Your task to perform on an android device: open chrome privacy settings Image 0: 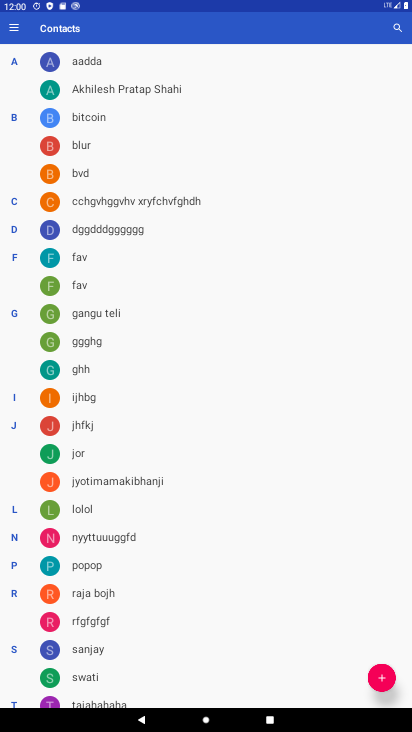
Step 0: press home button
Your task to perform on an android device: open chrome privacy settings Image 1: 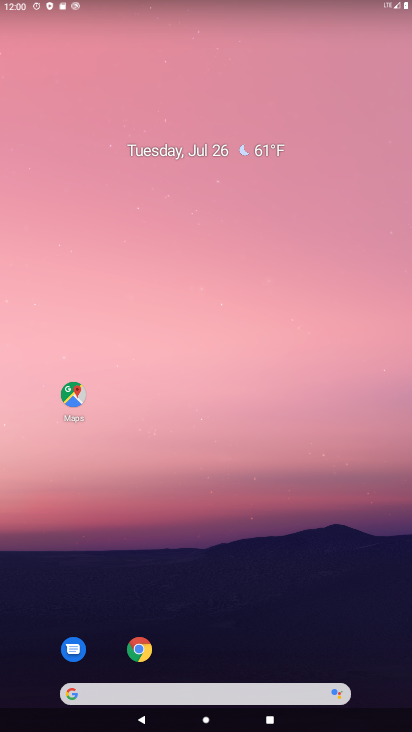
Step 1: drag from (222, 668) to (394, 41)
Your task to perform on an android device: open chrome privacy settings Image 2: 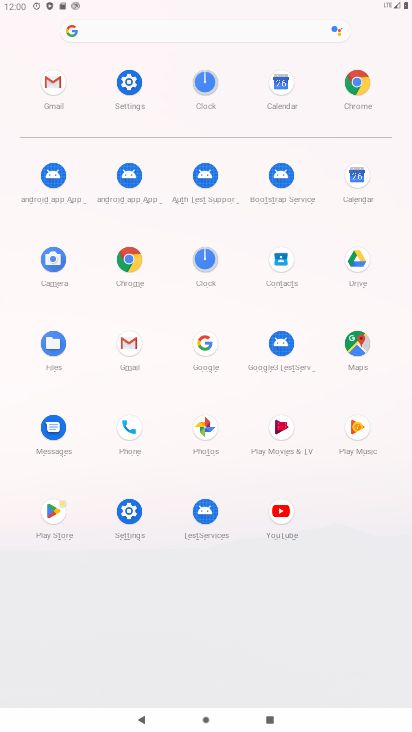
Step 2: click (126, 259)
Your task to perform on an android device: open chrome privacy settings Image 3: 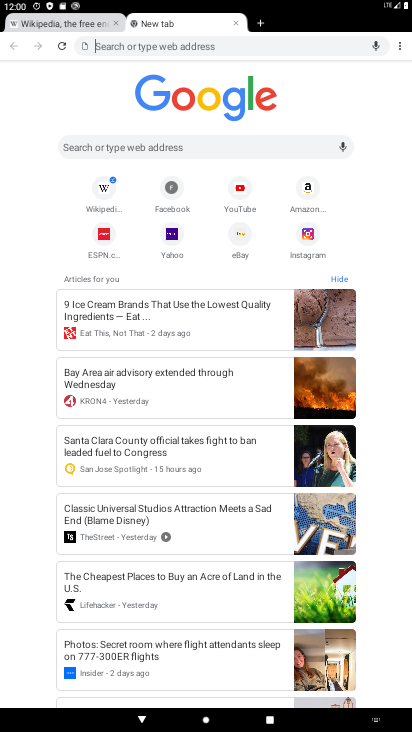
Step 3: drag from (401, 45) to (315, 216)
Your task to perform on an android device: open chrome privacy settings Image 4: 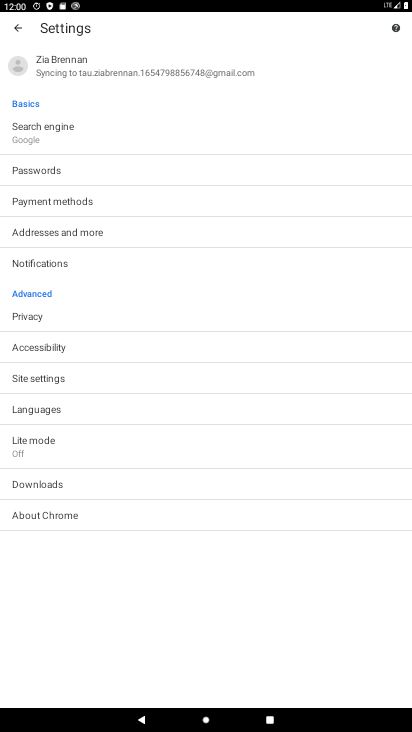
Step 4: click (34, 321)
Your task to perform on an android device: open chrome privacy settings Image 5: 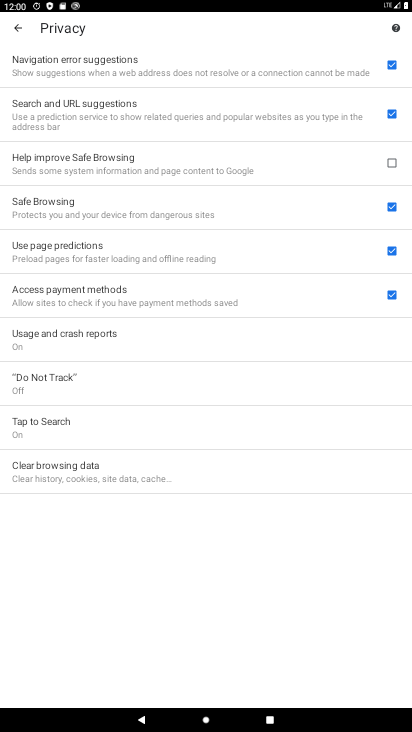
Step 5: task complete